Your task to perform on an android device: clear all cookies in the chrome app Image 0: 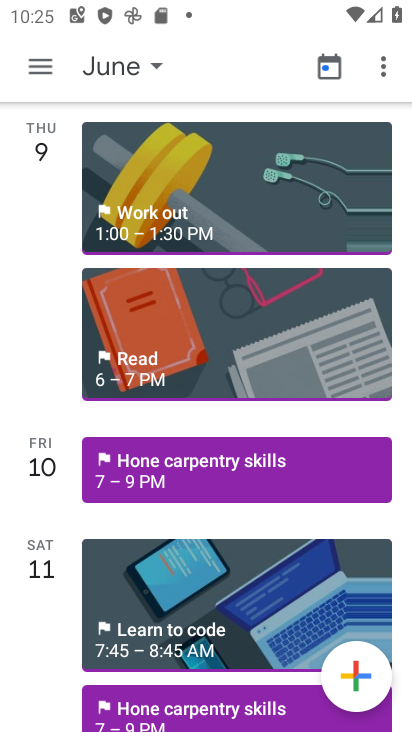
Step 0: press home button
Your task to perform on an android device: clear all cookies in the chrome app Image 1: 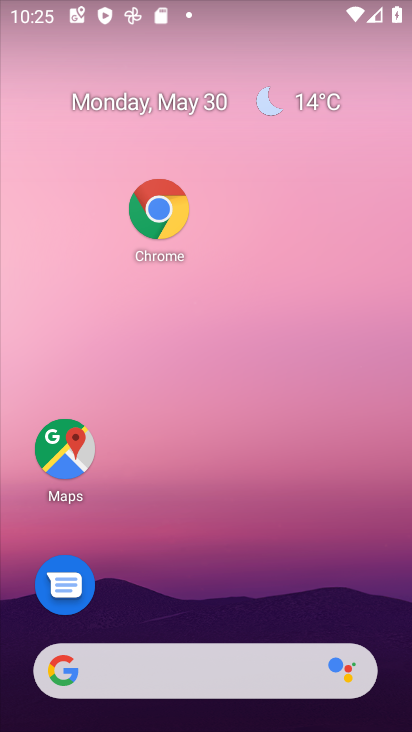
Step 1: click (157, 196)
Your task to perform on an android device: clear all cookies in the chrome app Image 2: 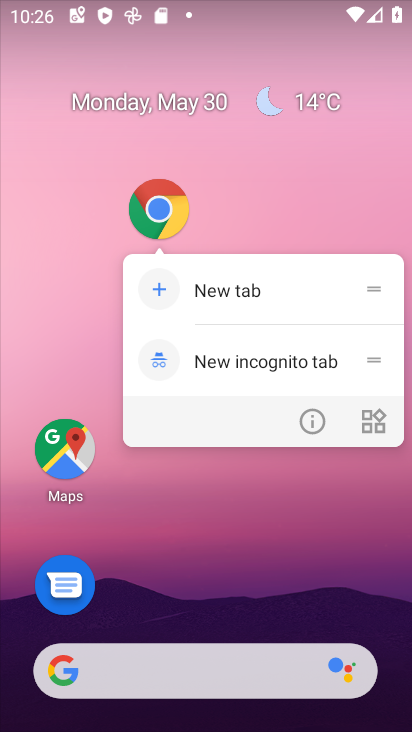
Step 2: click (308, 429)
Your task to perform on an android device: clear all cookies in the chrome app Image 3: 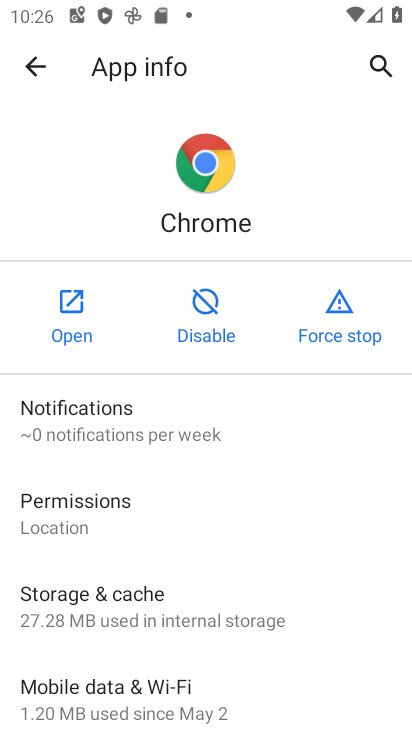
Step 3: click (85, 321)
Your task to perform on an android device: clear all cookies in the chrome app Image 4: 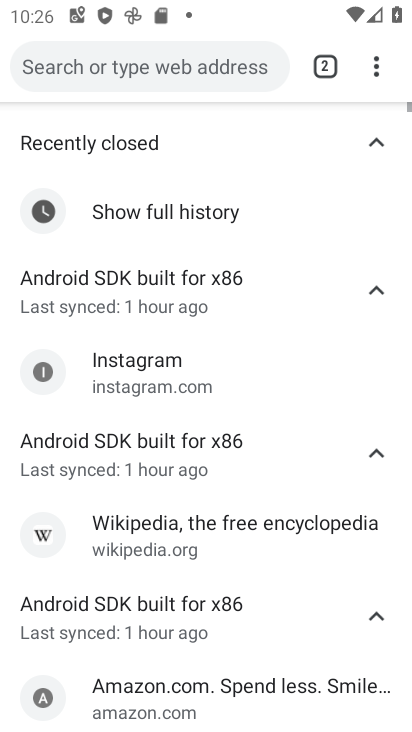
Step 4: click (370, 70)
Your task to perform on an android device: clear all cookies in the chrome app Image 5: 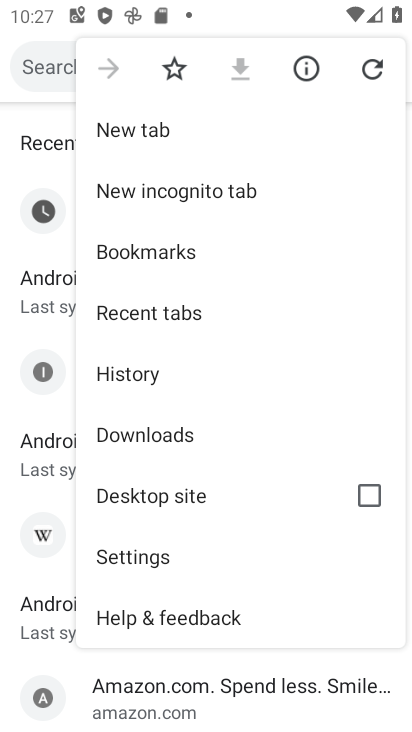
Step 5: click (175, 562)
Your task to perform on an android device: clear all cookies in the chrome app Image 6: 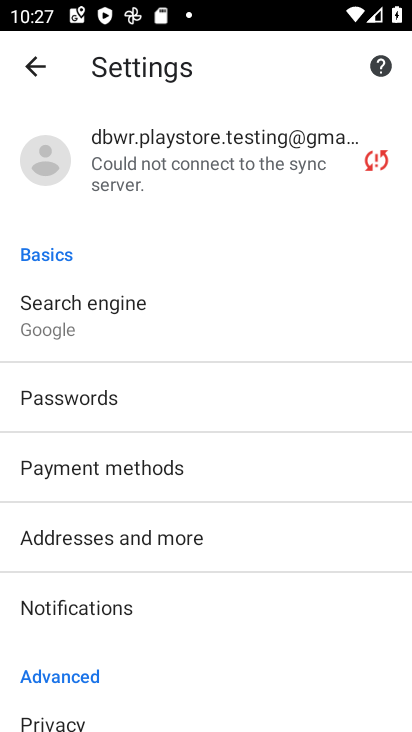
Step 6: click (43, 78)
Your task to perform on an android device: clear all cookies in the chrome app Image 7: 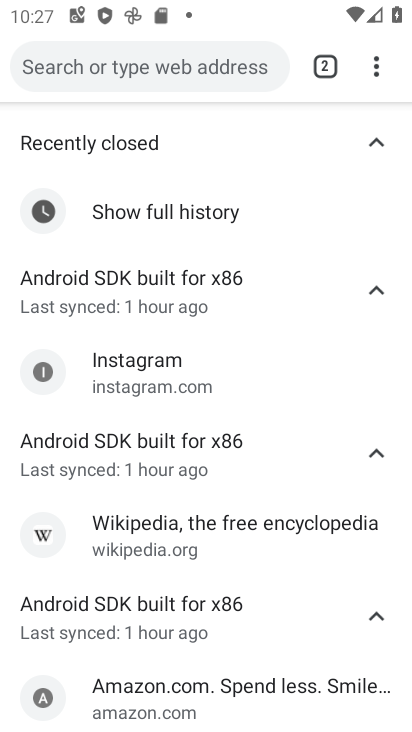
Step 7: click (379, 54)
Your task to perform on an android device: clear all cookies in the chrome app Image 8: 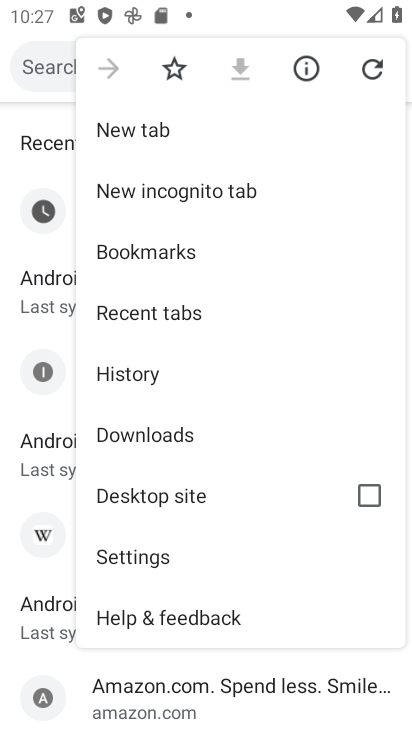
Step 8: click (159, 386)
Your task to perform on an android device: clear all cookies in the chrome app Image 9: 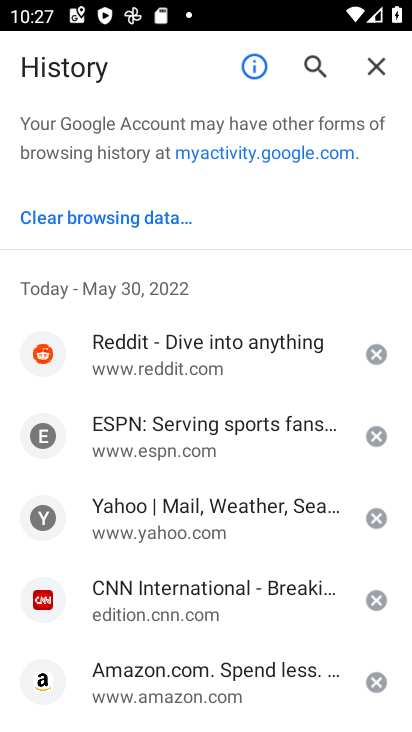
Step 9: click (67, 212)
Your task to perform on an android device: clear all cookies in the chrome app Image 10: 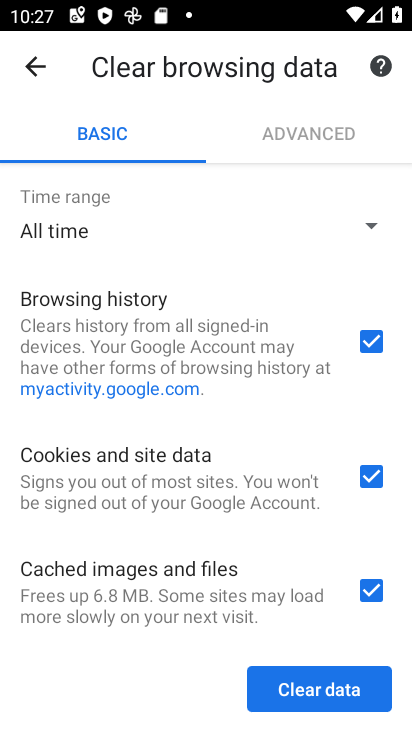
Step 10: click (308, 692)
Your task to perform on an android device: clear all cookies in the chrome app Image 11: 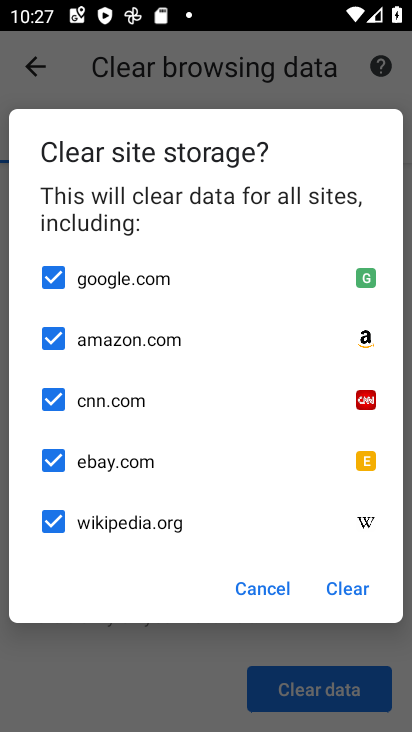
Step 11: click (337, 597)
Your task to perform on an android device: clear all cookies in the chrome app Image 12: 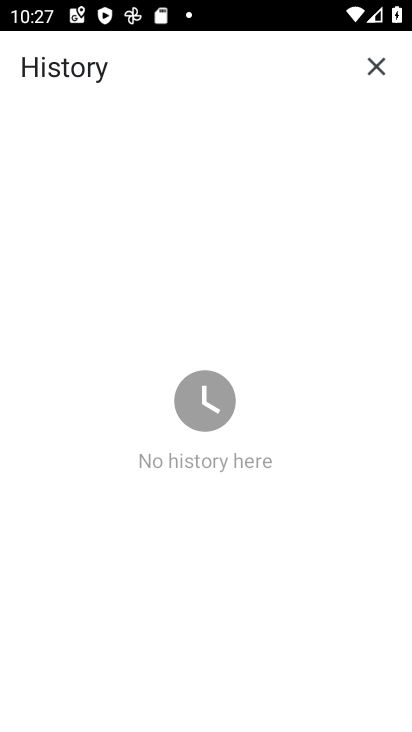
Step 12: task complete